Your task to perform on an android device: toggle priority inbox in the gmail app Image 0: 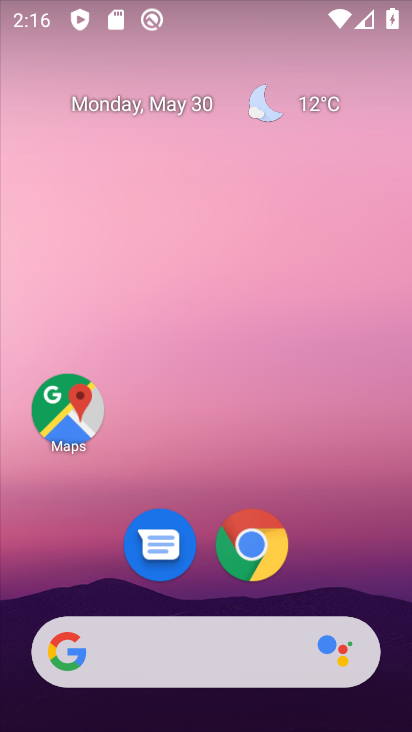
Step 0: drag from (223, 585) to (109, 70)
Your task to perform on an android device: toggle priority inbox in the gmail app Image 1: 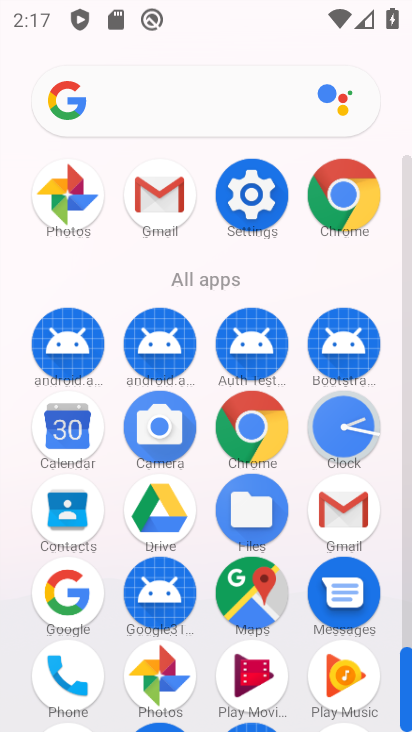
Step 1: click (173, 172)
Your task to perform on an android device: toggle priority inbox in the gmail app Image 2: 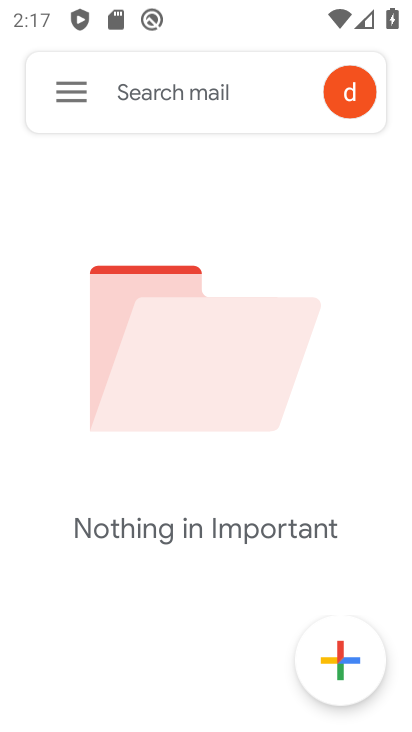
Step 2: click (171, 182)
Your task to perform on an android device: toggle priority inbox in the gmail app Image 3: 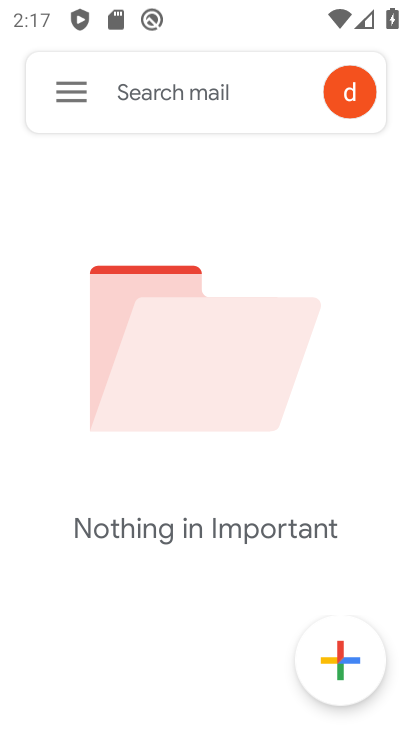
Step 3: click (82, 86)
Your task to perform on an android device: toggle priority inbox in the gmail app Image 4: 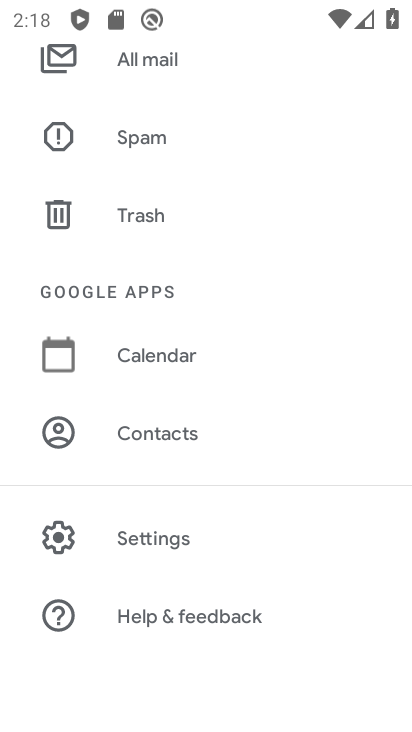
Step 4: click (159, 529)
Your task to perform on an android device: toggle priority inbox in the gmail app Image 5: 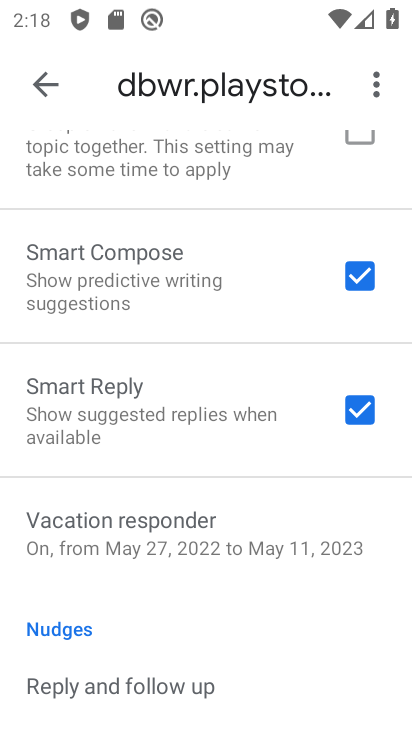
Step 5: drag from (209, 173) to (256, 667)
Your task to perform on an android device: toggle priority inbox in the gmail app Image 6: 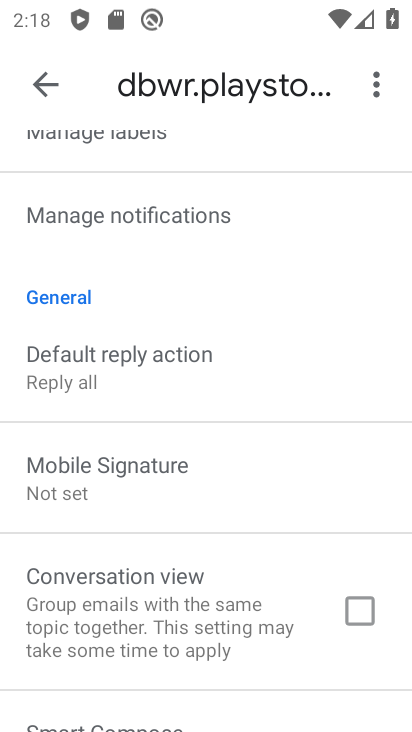
Step 6: drag from (169, 349) to (231, 695)
Your task to perform on an android device: toggle priority inbox in the gmail app Image 7: 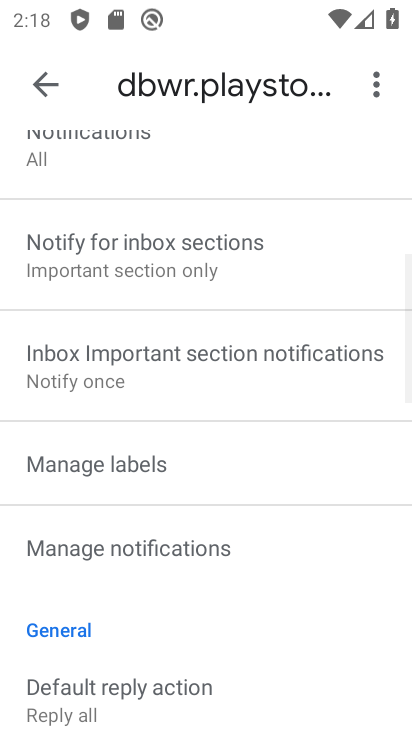
Step 7: drag from (209, 225) to (270, 642)
Your task to perform on an android device: toggle priority inbox in the gmail app Image 8: 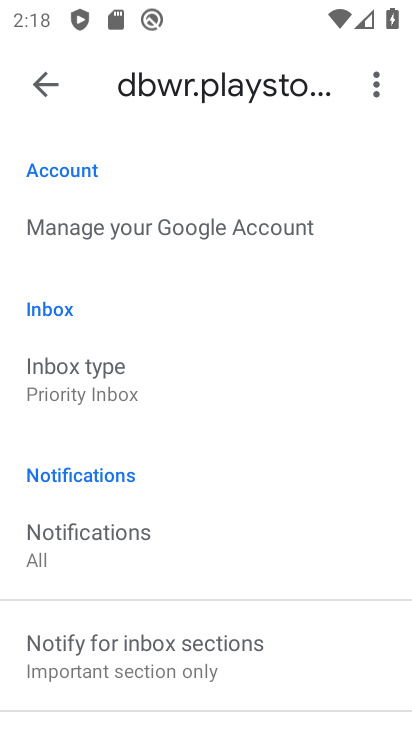
Step 8: click (125, 384)
Your task to perform on an android device: toggle priority inbox in the gmail app Image 9: 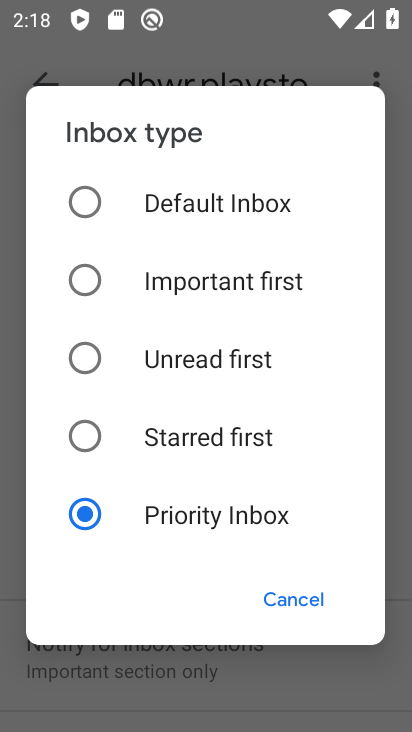
Step 9: click (153, 376)
Your task to perform on an android device: toggle priority inbox in the gmail app Image 10: 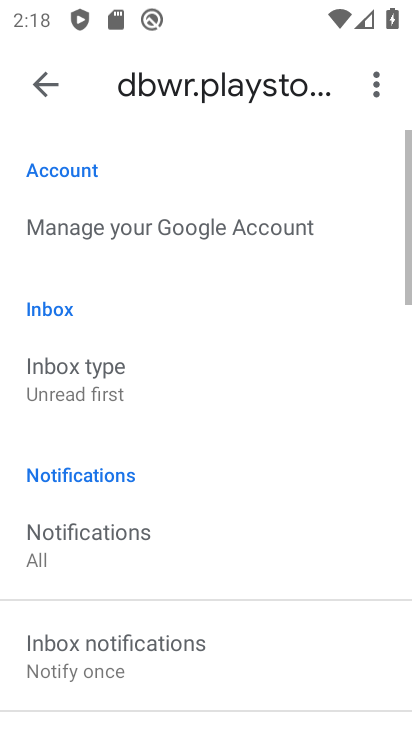
Step 10: task complete